Your task to perform on an android device: Add "razer blackwidow" to the cart on walmart, then select checkout. Image 0: 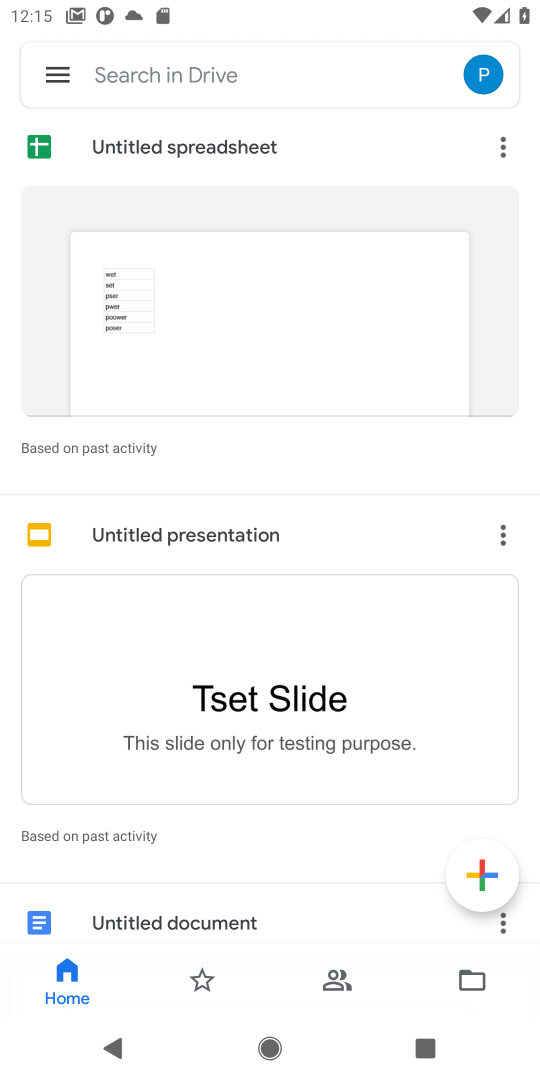
Step 0: press home button
Your task to perform on an android device: Add "razer blackwidow" to the cart on walmart, then select checkout. Image 1: 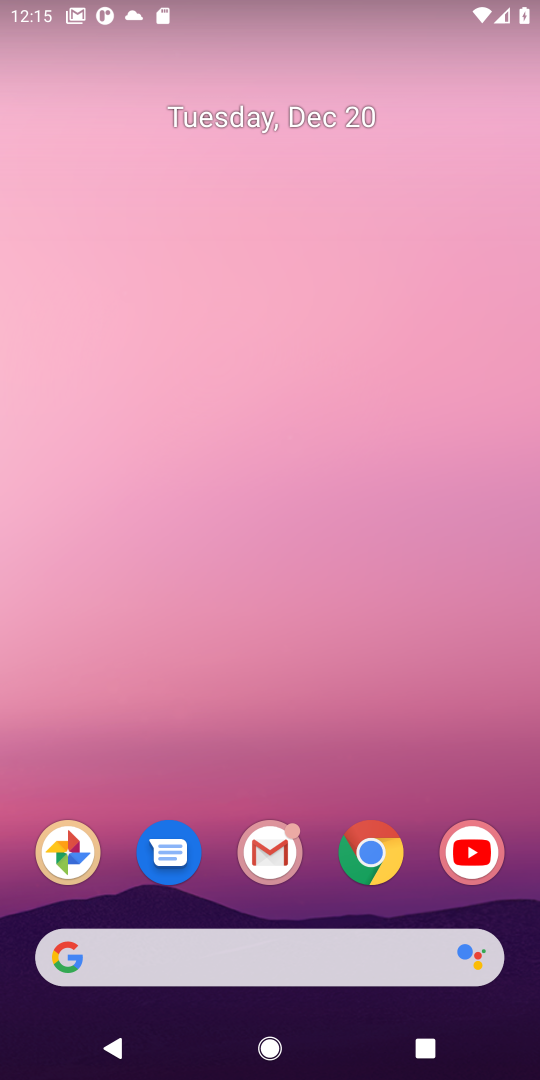
Step 1: click (374, 867)
Your task to perform on an android device: Add "razer blackwidow" to the cart on walmart, then select checkout. Image 2: 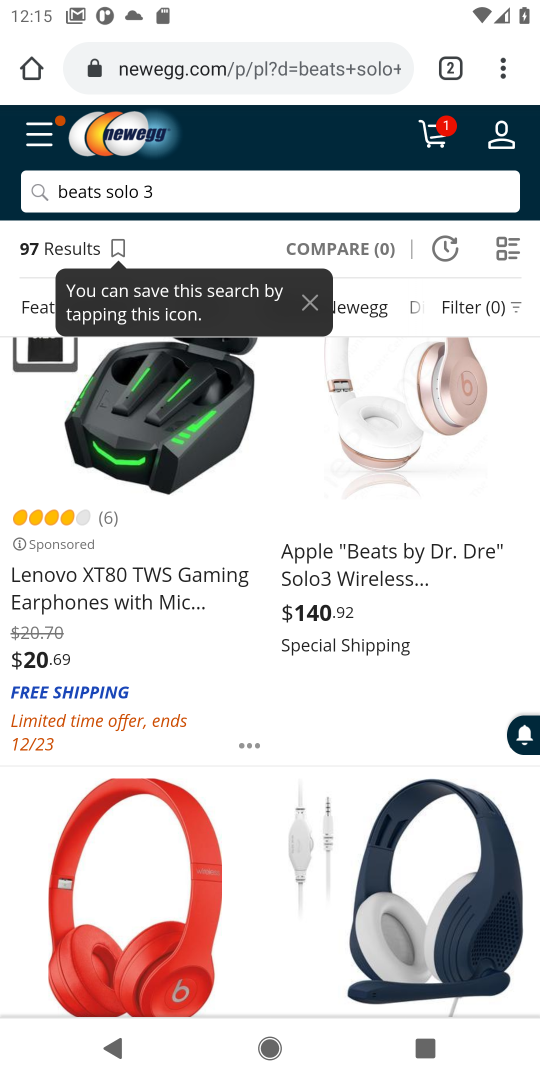
Step 2: click (168, 77)
Your task to perform on an android device: Add "razer blackwidow" to the cart on walmart, then select checkout. Image 3: 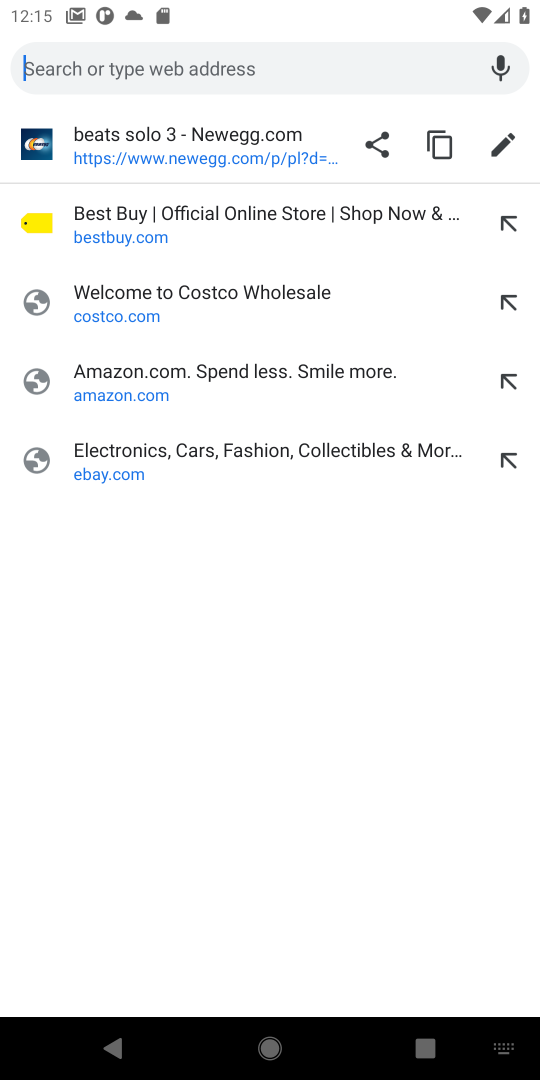
Step 3: type "walmart.com"
Your task to perform on an android device: Add "razer blackwidow" to the cart on walmart, then select checkout. Image 4: 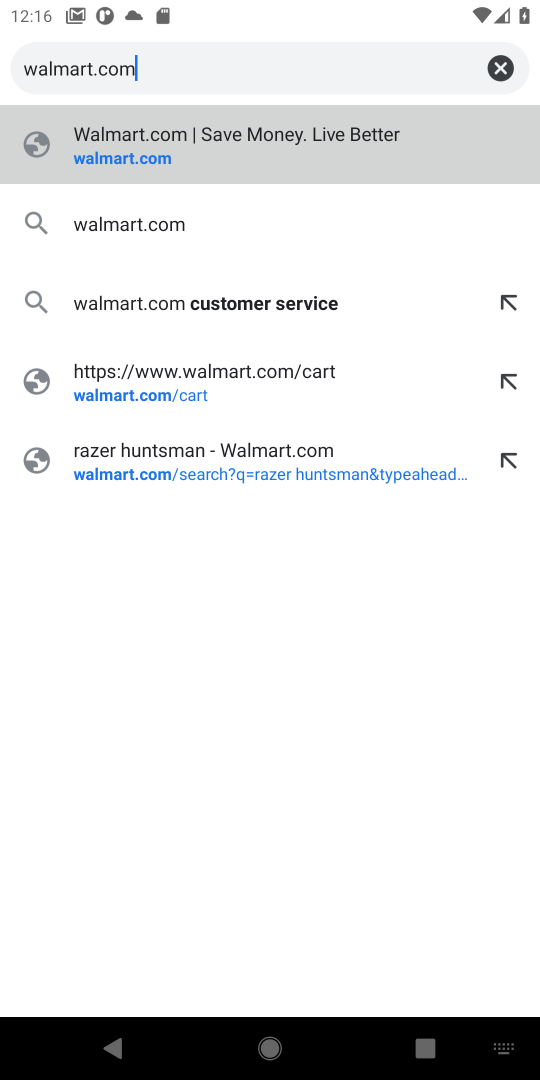
Step 4: click (112, 159)
Your task to perform on an android device: Add "razer blackwidow" to the cart on walmart, then select checkout. Image 5: 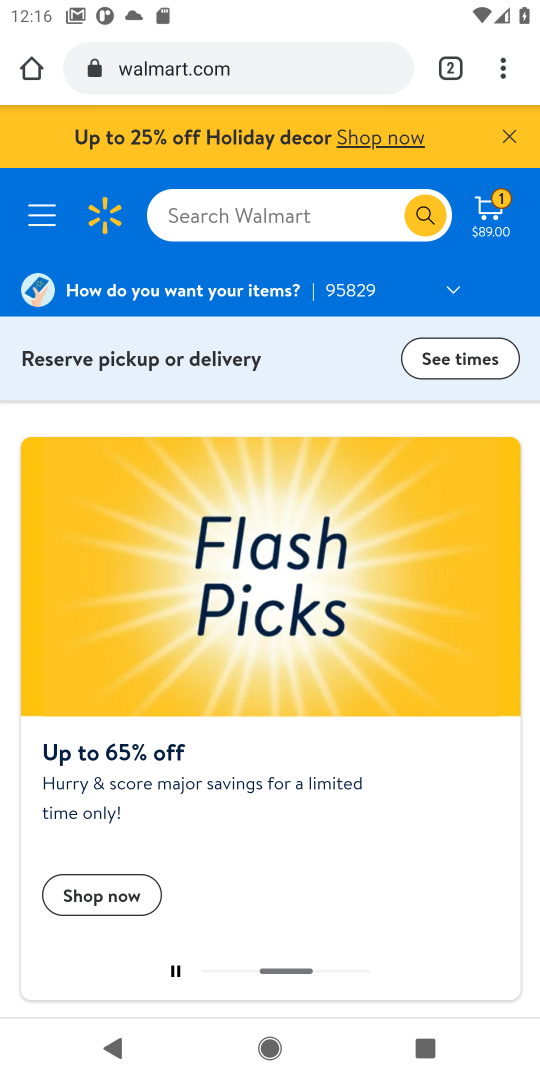
Step 5: click (195, 225)
Your task to perform on an android device: Add "razer blackwidow" to the cart on walmart, then select checkout. Image 6: 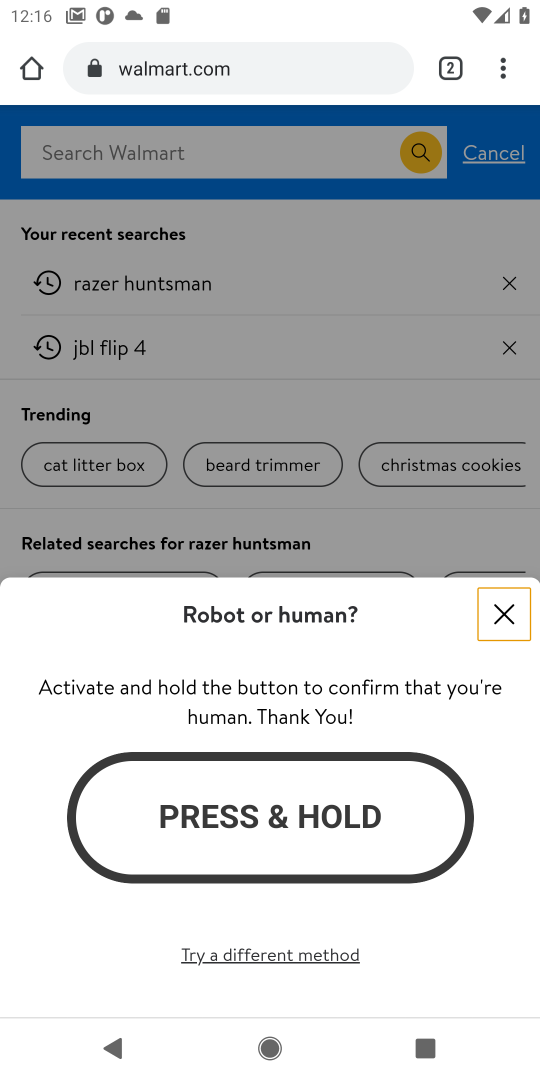
Step 6: click (269, 957)
Your task to perform on an android device: Add "razer blackwidow" to the cart on walmart, then select checkout. Image 7: 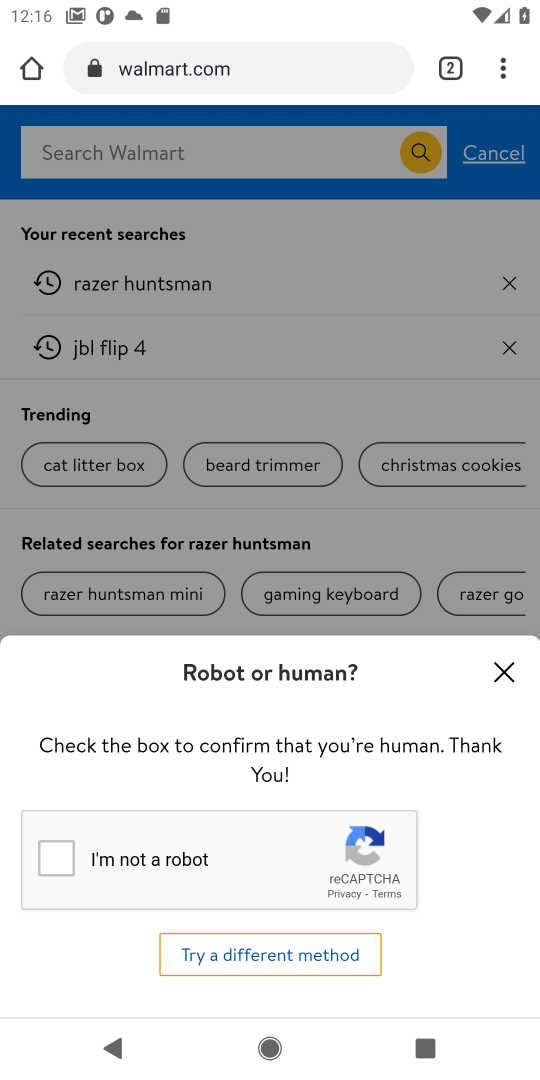
Step 7: click (63, 862)
Your task to perform on an android device: Add "razer blackwidow" to the cart on walmart, then select checkout. Image 8: 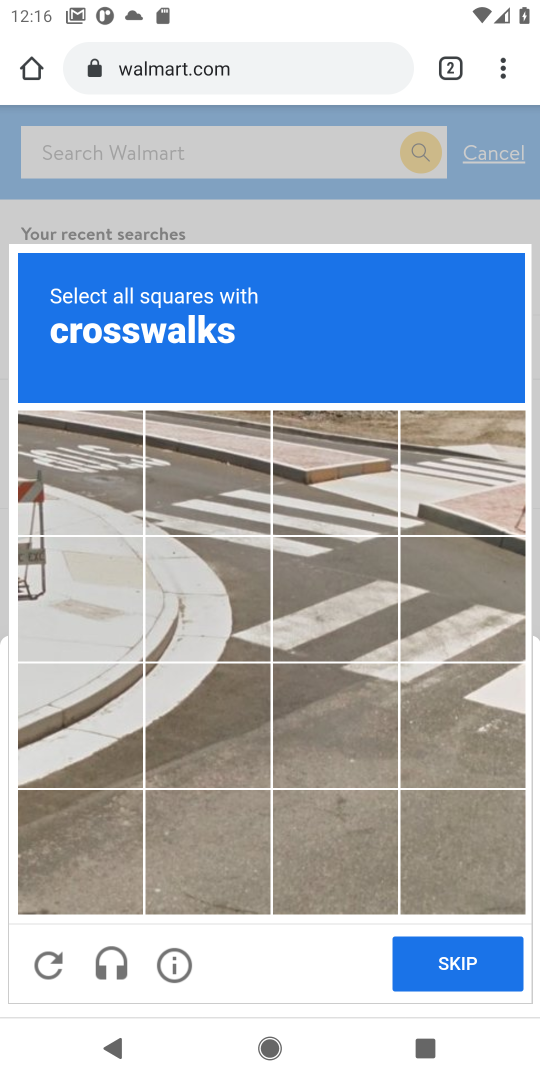
Step 8: click (80, 471)
Your task to perform on an android device: Add "razer blackwidow" to the cart on walmart, then select checkout. Image 9: 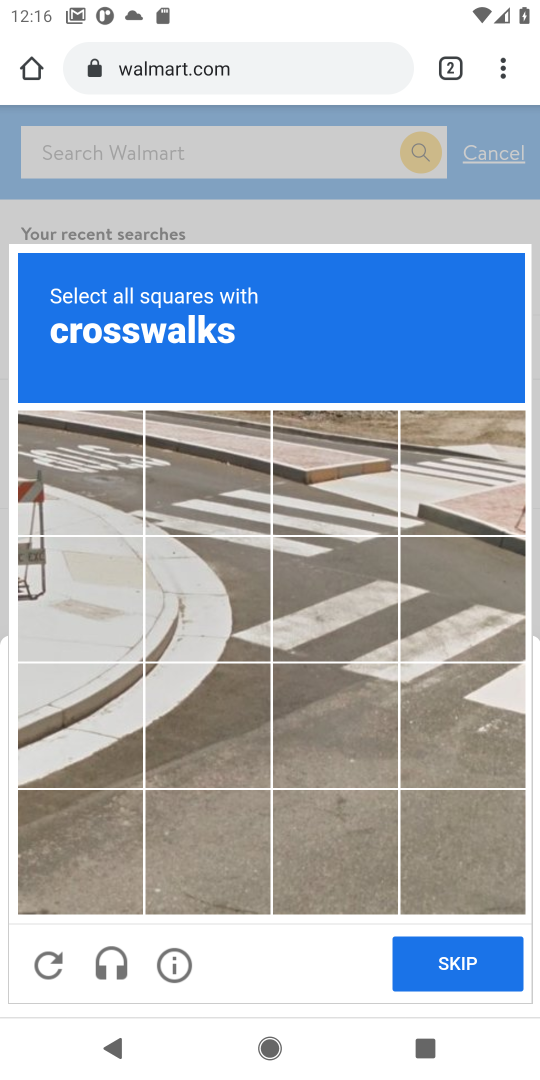
Step 9: click (275, 516)
Your task to perform on an android device: Add "razer blackwidow" to the cart on walmart, then select checkout. Image 10: 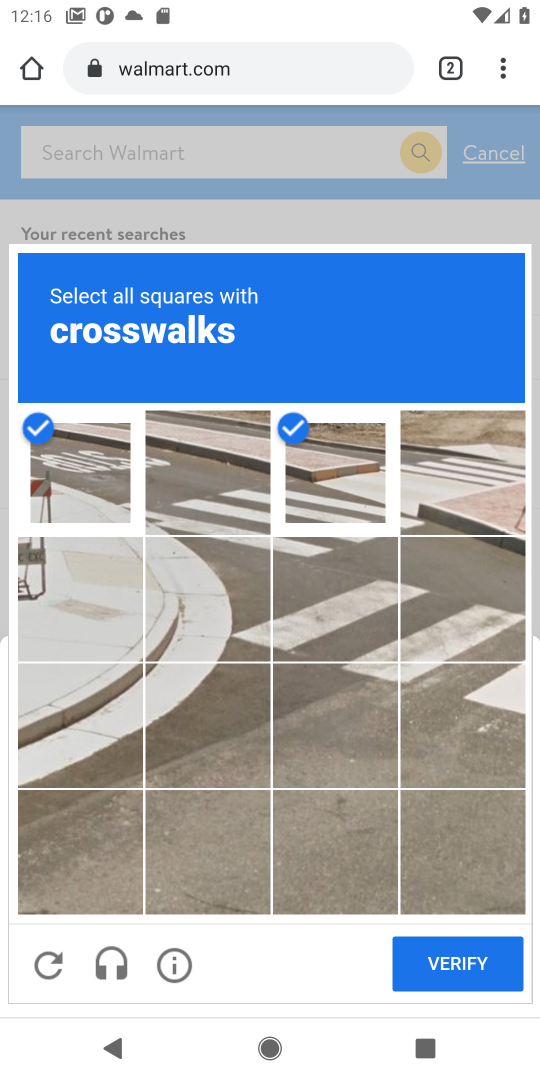
Step 10: click (429, 500)
Your task to perform on an android device: Add "razer blackwidow" to the cart on walmart, then select checkout. Image 11: 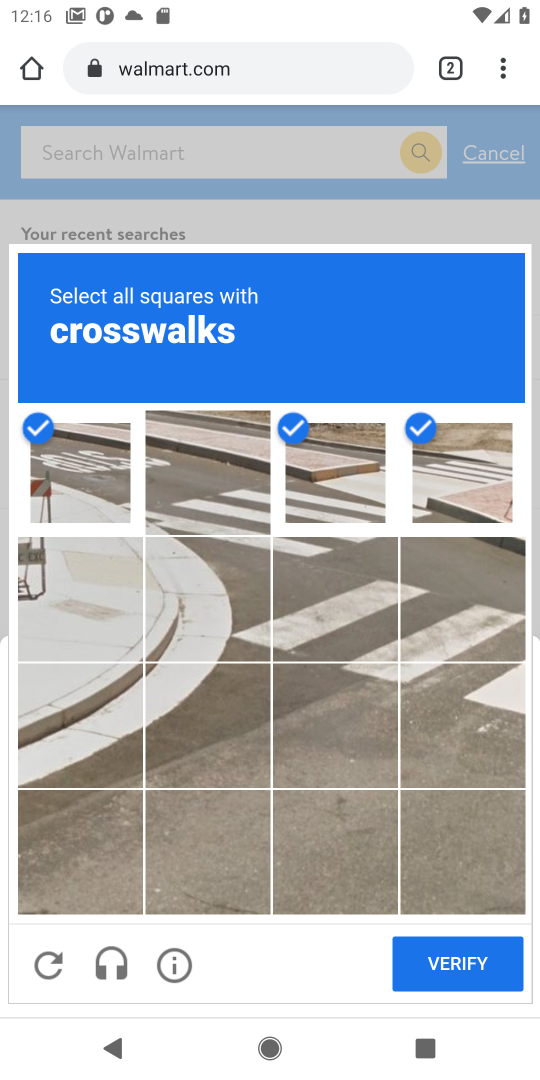
Step 11: click (228, 523)
Your task to perform on an android device: Add "razer blackwidow" to the cart on walmart, then select checkout. Image 12: 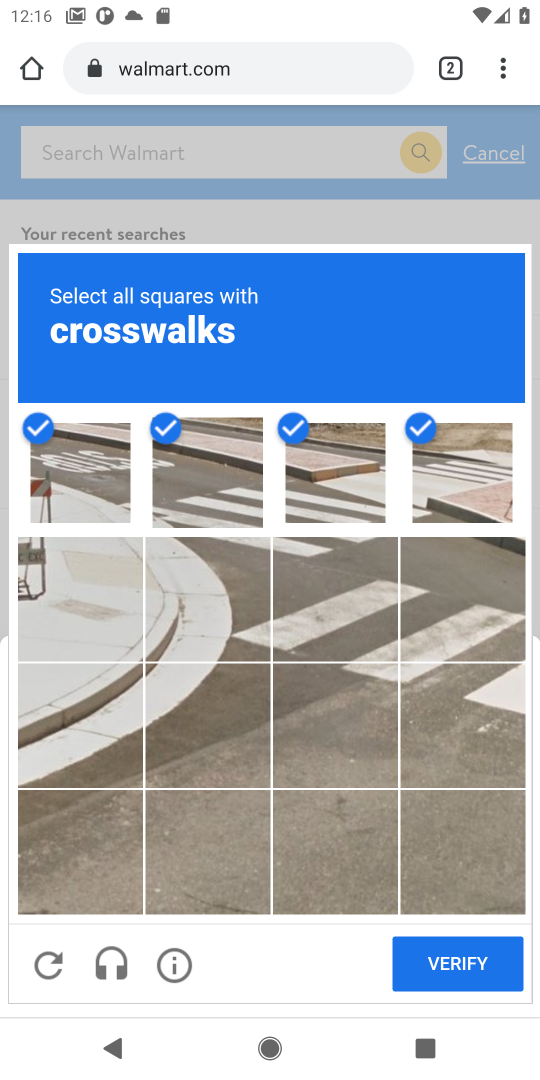
Step 12: click (322, 634)
Your task to perform on an android device: Add "razer blackwidow" to the cart on walmart, then select checkout. Image 13: 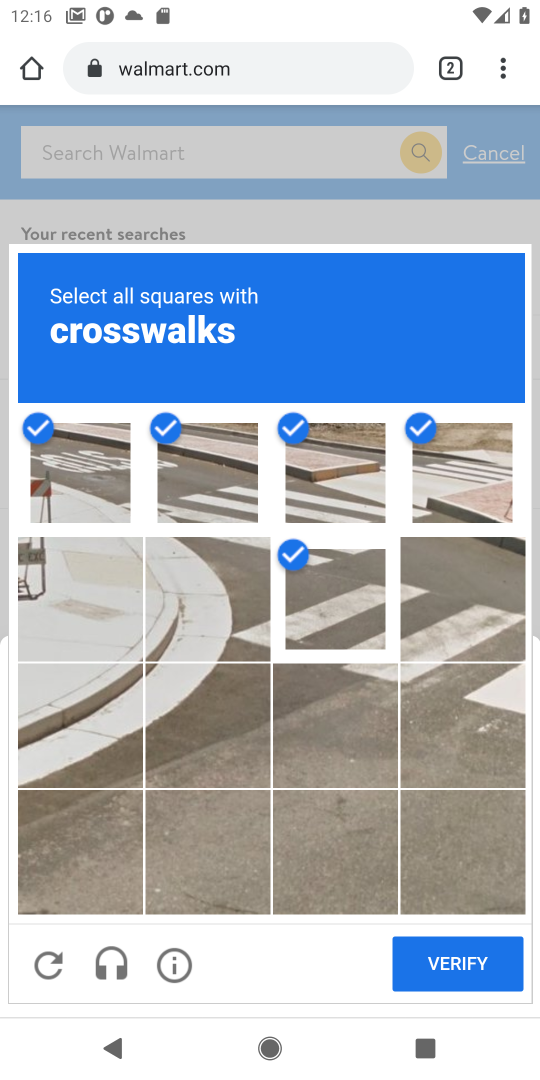
Step 13: click (447, 640)
Your task to perform on an android device: Add "razer blackwidow" to the cart on walmart, then select checkout. Image 14: 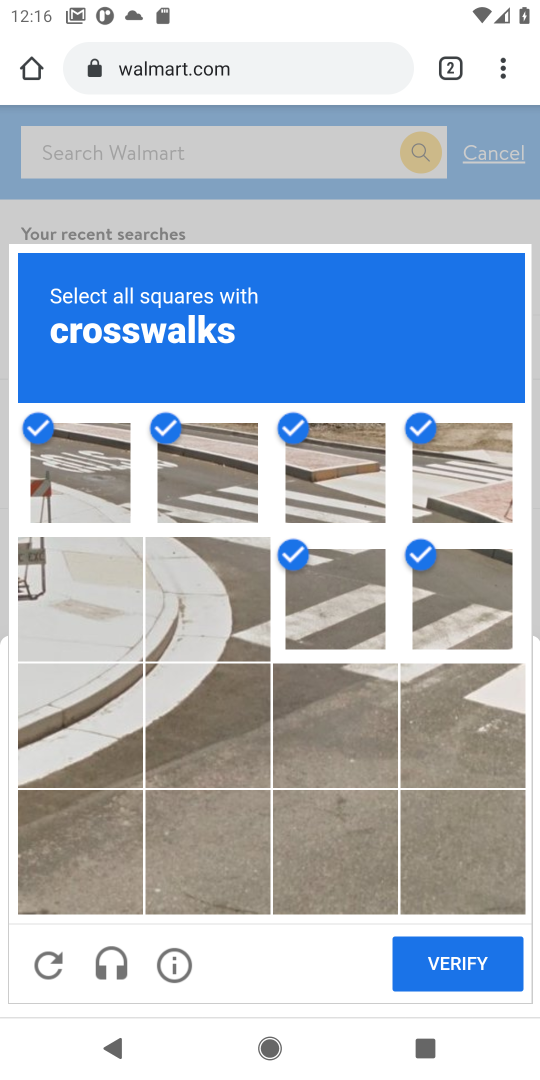
Step 14: click (474, 694)
Your task to perform on an android device: Add "razer blackwidow" to the cart on walmart, then select checkout. Image 15: 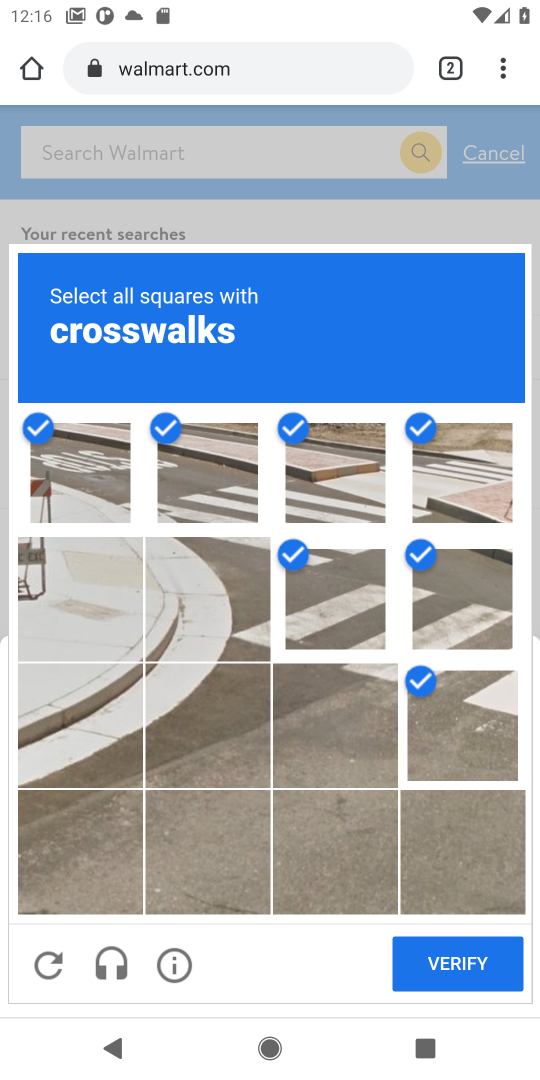
Step 15: click (251, 634)
Your task to perform on an android device: Add "razer blackwidow" to the cart on walmart, then select checkout. Image 16: 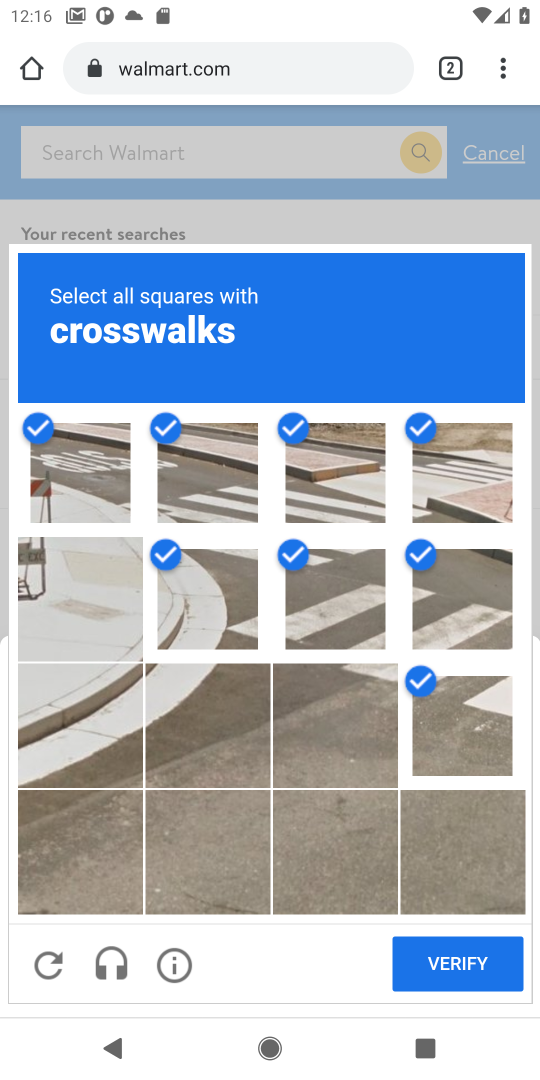
Step 16: click (459, 975)
Your task to perform on an android device: Add "razer blackwidow" to the cart on walmart, then select checkout. Image 17: 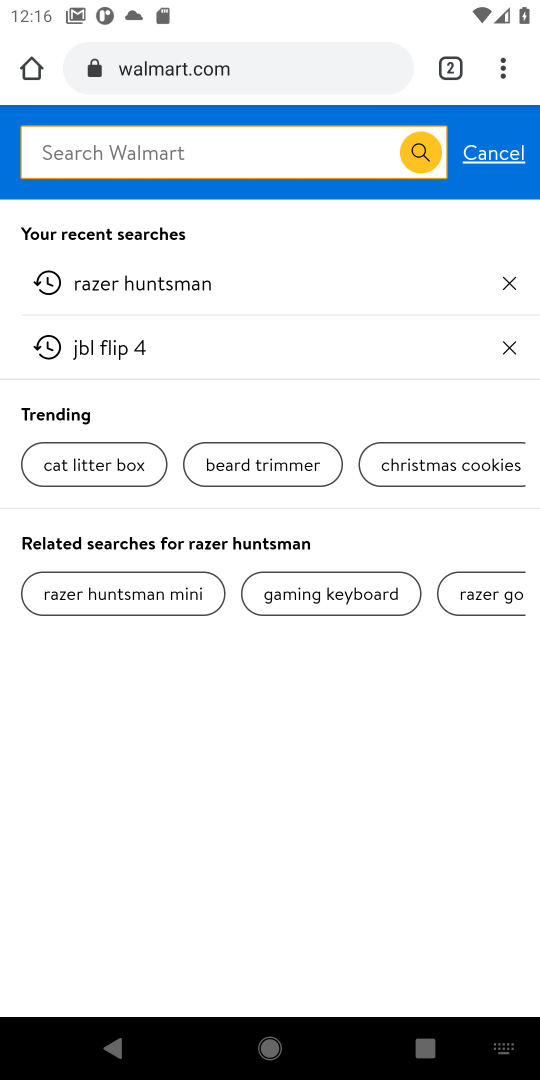
Step 17: click (140, 156)
Your task to perform on an android device: Add "razer blackwidow" to the cart on walmart, then select checkout. Image 18: 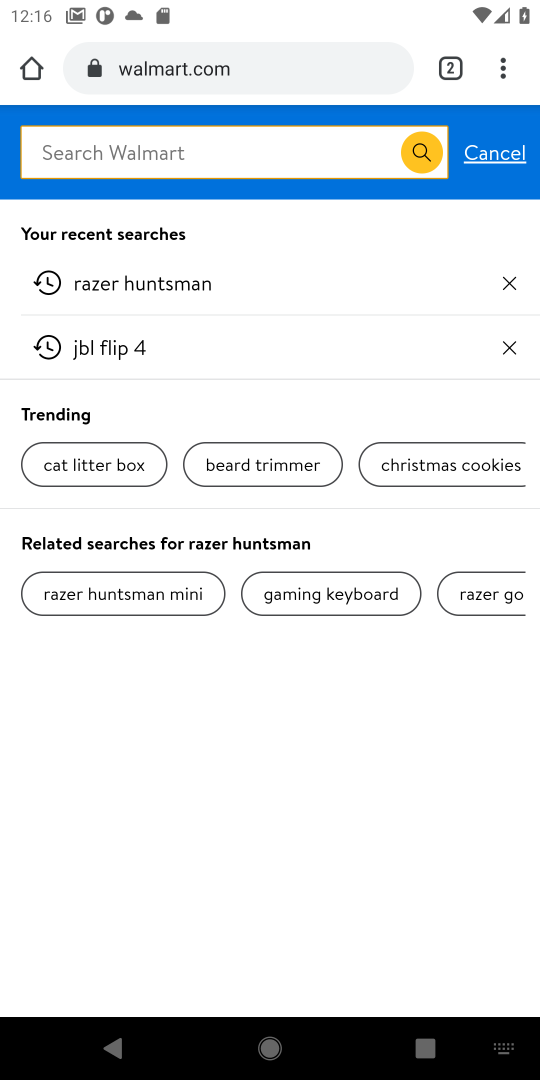
Step 18: type "razer blackwidow"
Your task to perform on an android device: Add "razer blackwidow" to the cart on walmart, then select checkout. Image 19: 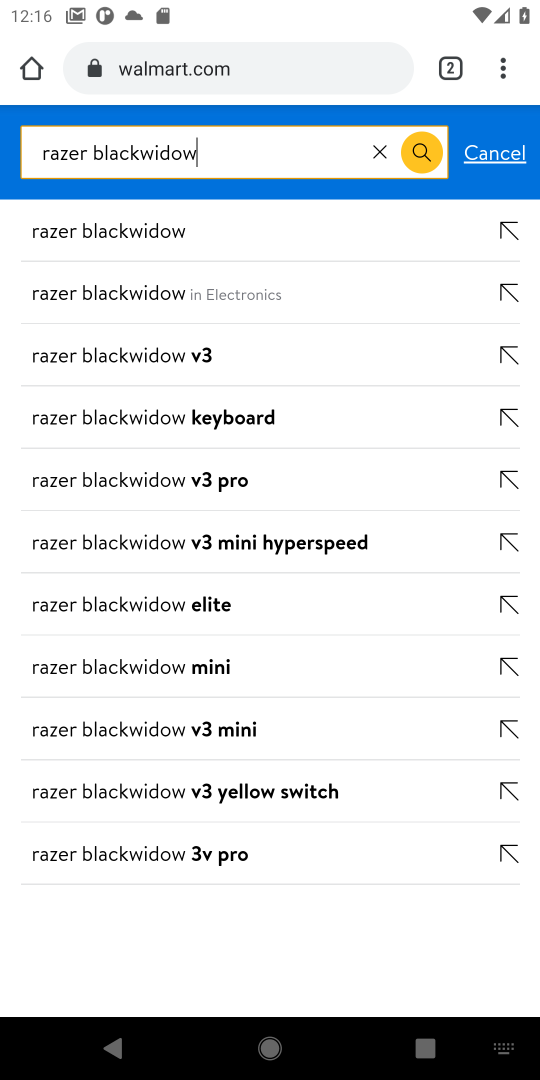
Step 19: click (111, 241)
Your task to perform on an android device: Add "razer blackwidow" to the cart on walmart, then select checkout. Image 20: 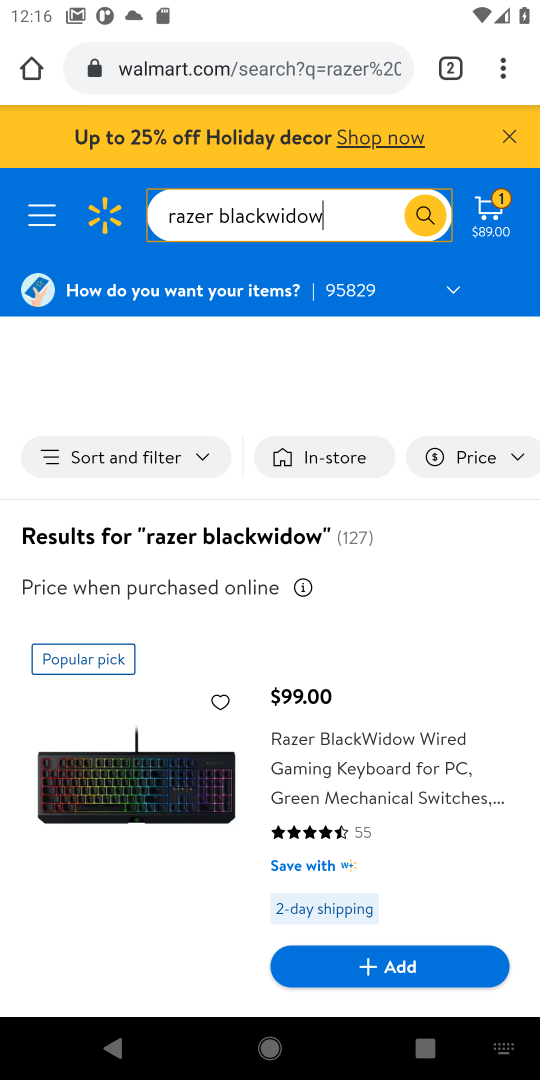
Step 20: drag from (237, 697) to (258, 431)
Your task to perform on an android device: Add "razer blackwidow" to the cart on walmart, then select checkout. Image 21: 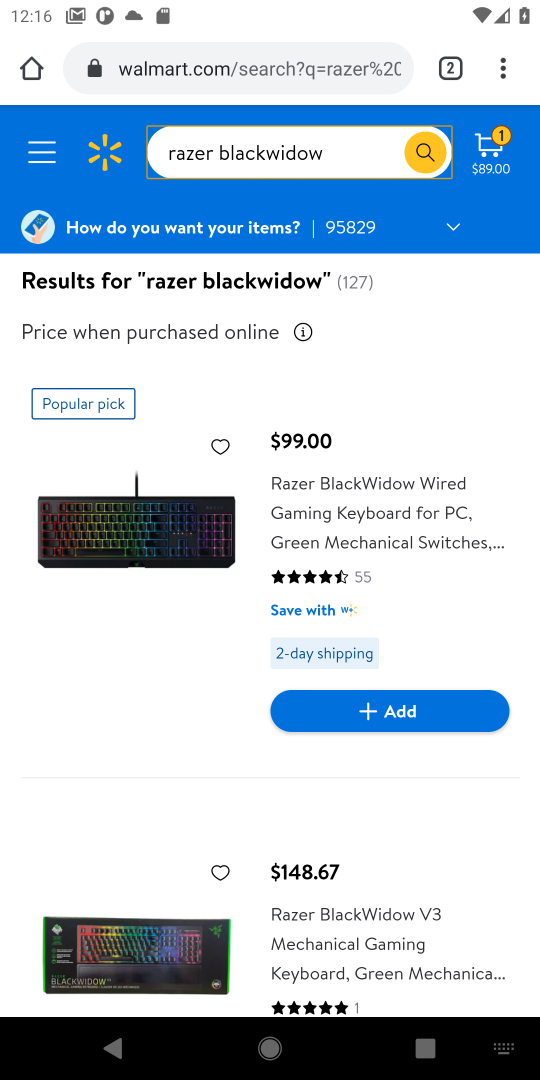
Step 21: click (386, 720)
Your task to perform on an android device: Add "razer blackwidow" to the cart on walmart, then select checkout. Image 22: 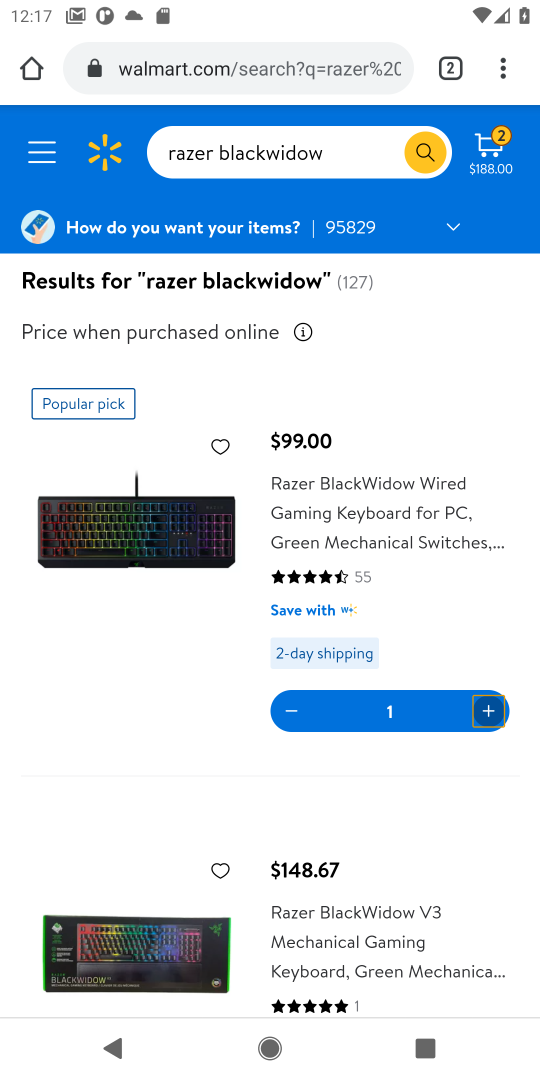
Step 22: click (488, 159)
Your task to perform on an android device: Add "razer blackwidow" to the cart on walmart, then select checkout. Image 23: 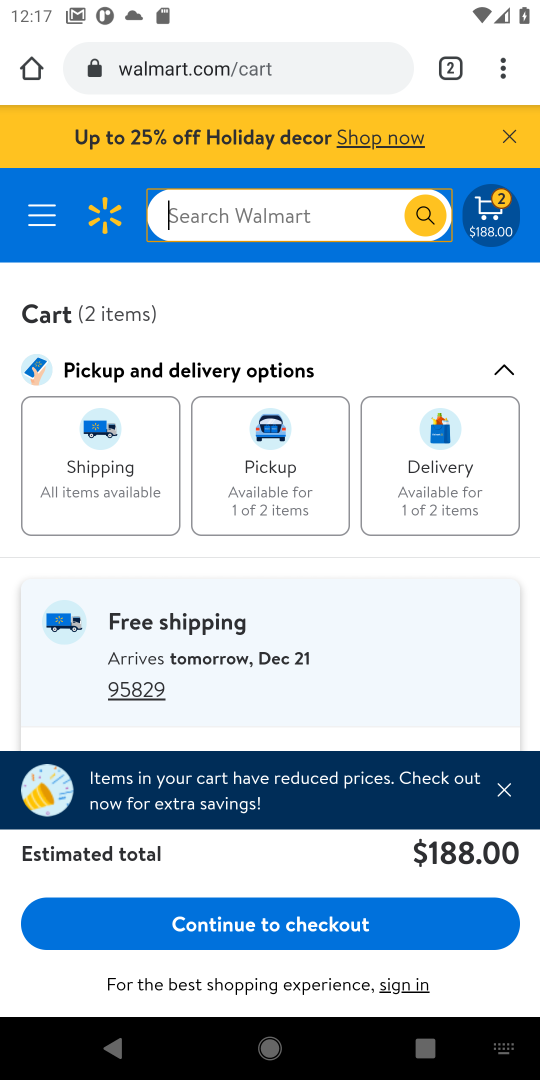
Step 23: click (291, 926)
Your task to perform on an android device: Add "razer blackwidow" to the cart on walmart, then select checkout. Image 24: 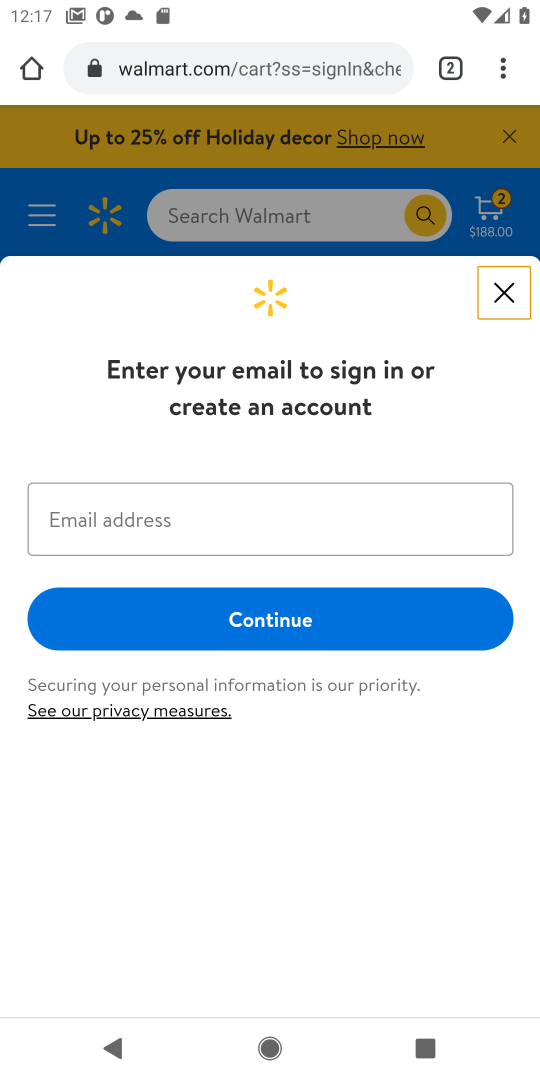
Step 24: task complete